Your task to perform on an android device: turn notification dots on Image 0: 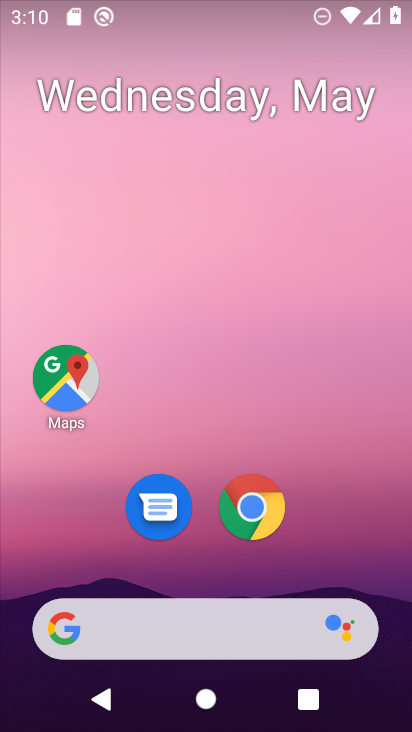
Step 0: drag from (204, 571) to (248, 109)
Your task to perform on an android device: turn notification dots on Image 1: 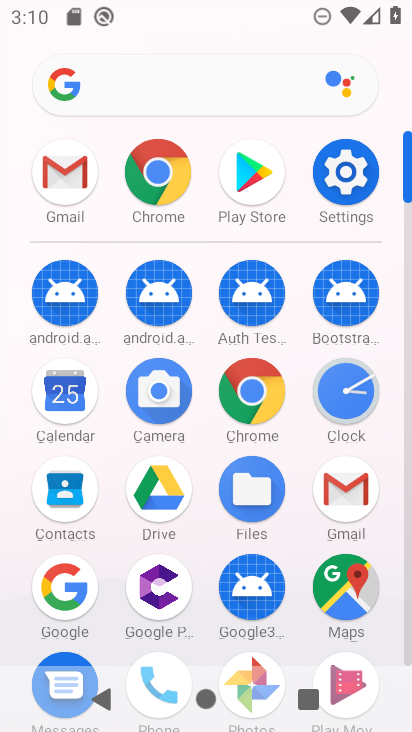
Step 1: click (336, 200)
Your task to perform on an android device: turn notification dots on Image 2: 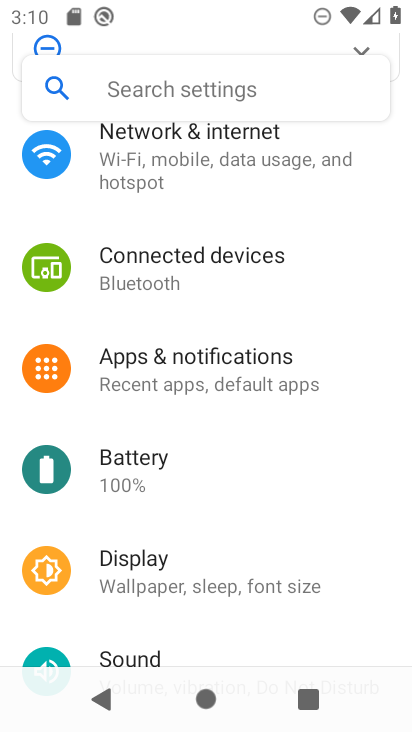
Step 2: click (247, 371)
Your task to perform on an android device: turn notification dots on Image 3: 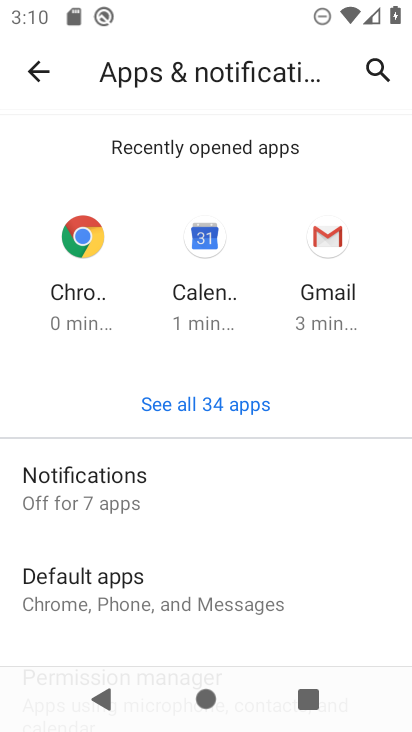
Step 3: click (110, 486)
Your task to perform on an android device: turn notification dots on Image 4: 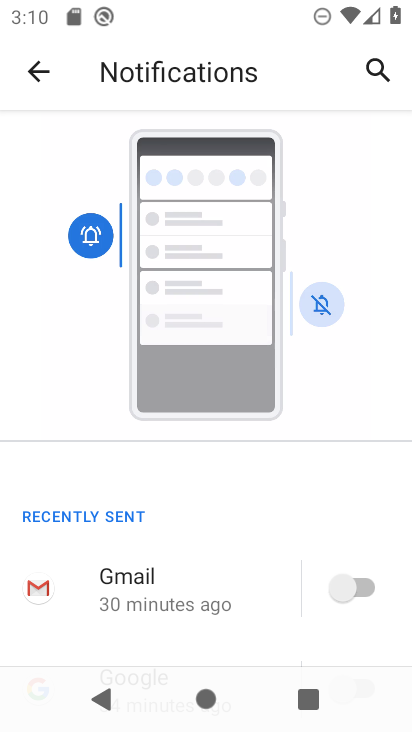
Step 4: drag from (192, 530) to (273, 181)
Your task to perform on an android device: turn notification dots on Image 5: 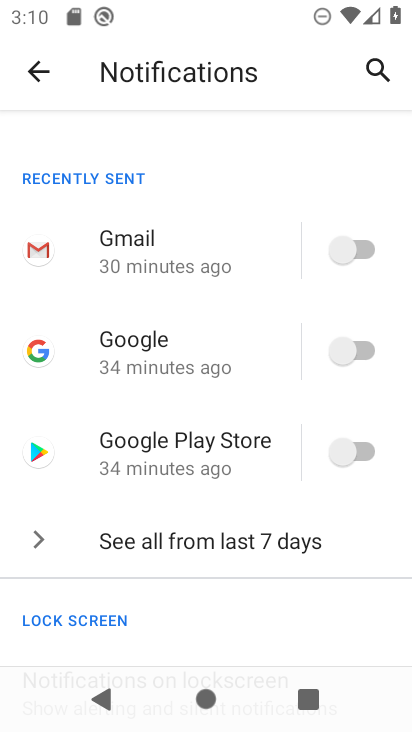
Step 5: drag from (286, 539) to (286, 226)
Your task to perform on an android device: turn notification dots on Image 6: 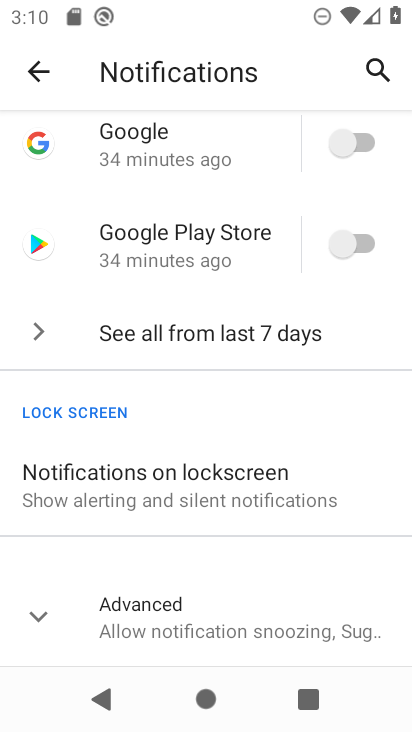
Step 6: drag from (277, 522) to (302, 385)
Your task to perform on an android device: turn notification dots on Image 7: 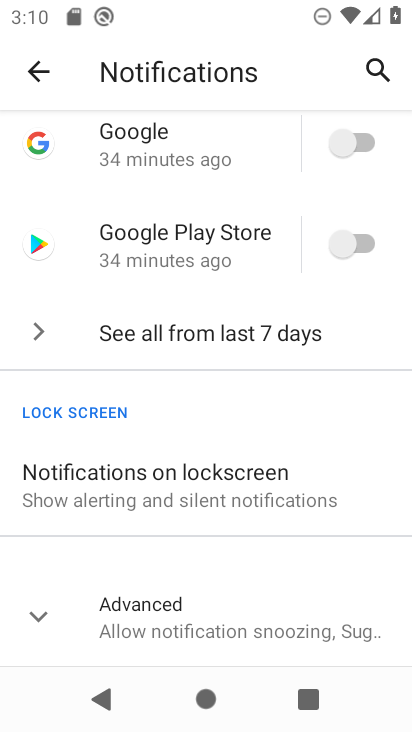
Step 7: click (100, 630)
Your task to perform on an android device: turn notification dots on Image 8: 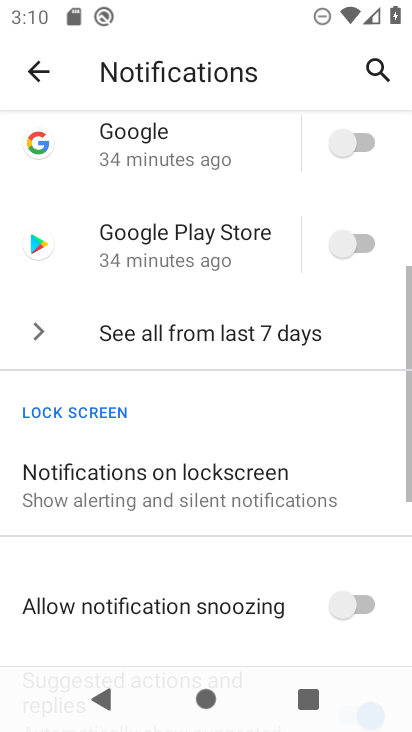
Step 8: task complete